Your task to perform on an android device: read, delete, or share a saved page in the chrome app Image 0: 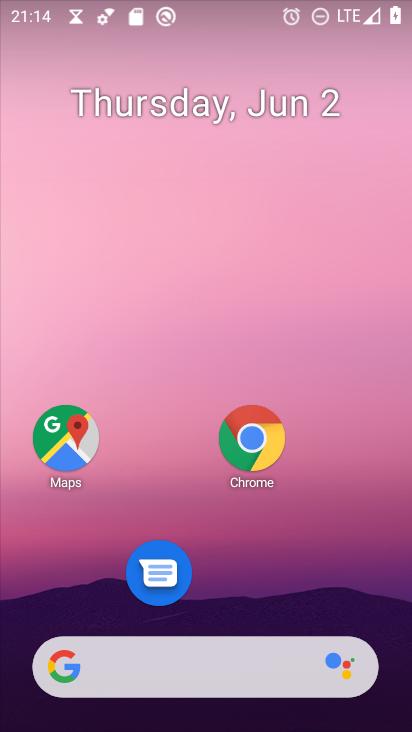
Step 0: click (248, 440)
Your task to perform on an android device: read, delete, or share a saved page in the chrome app Image 1: 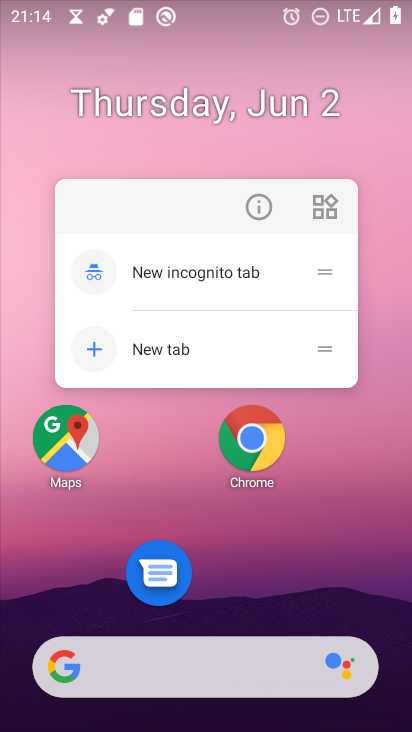
Step 1: click (249, 452)
Your task to perform on an android device: read, delete, or share a saved page in the chrome app Image 2: 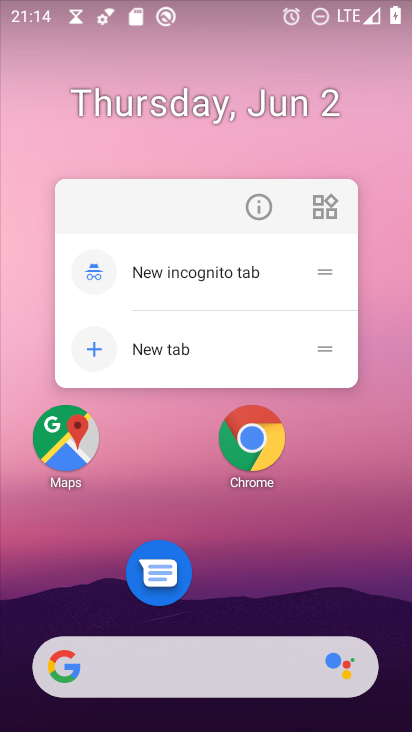
Step 2: click (255, 446)
Your task to perform on an android device: read, delete, or share a saved page in the chrome app Image 3: 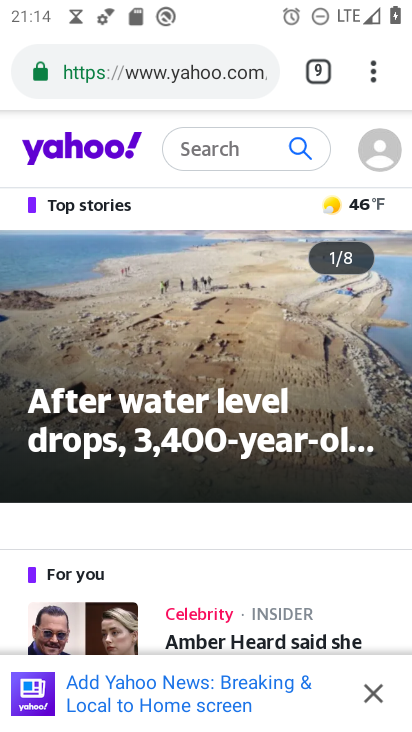
Step 3: drag from (375, 74) to (135, 469)
Your task to perform on an android device: read, delete, or share a saved page in the chrome app Image 4: 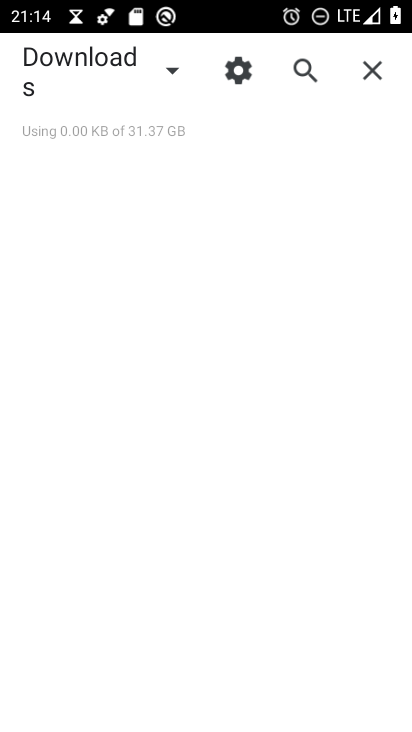
Step 4: click (168, 72)
Your task to perform on an android device: read, delete, or share a saved page in the chrome app Image 5: 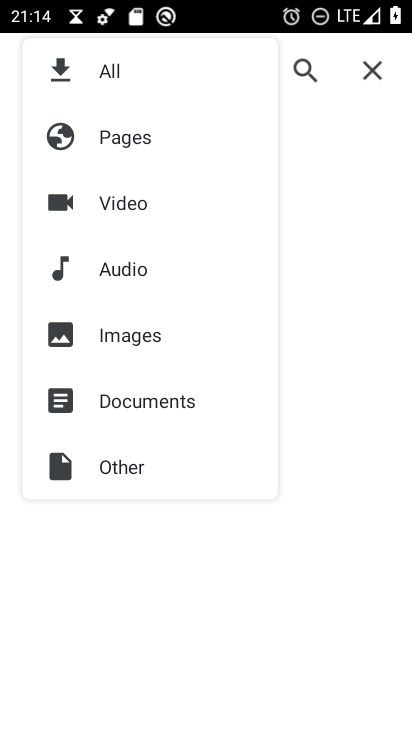
Step 5: click (121, 140)
Your task to perform on an android device: read, delete, or share a saved page in the chrome app Image 6: 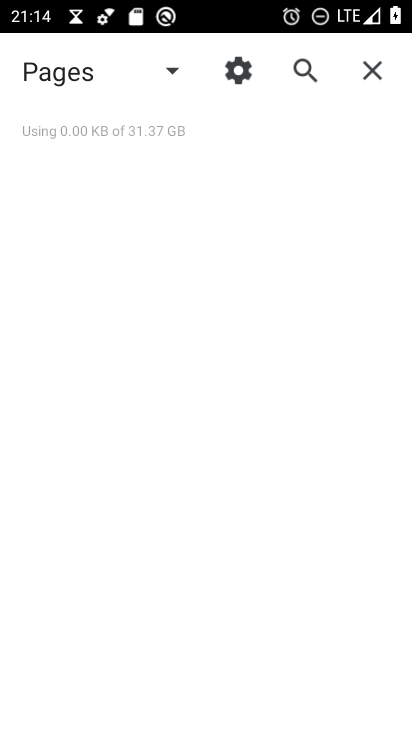
Step 6: task complete